Your task to perform on an android device: What's the weather? Image 0: 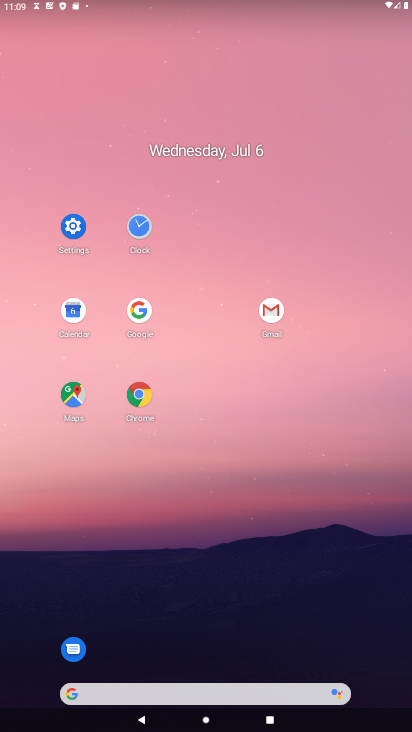
Step 0: drag from (278, 247) to (262, 72)
Your task to perform on an android device: What's the weather? Image 1: 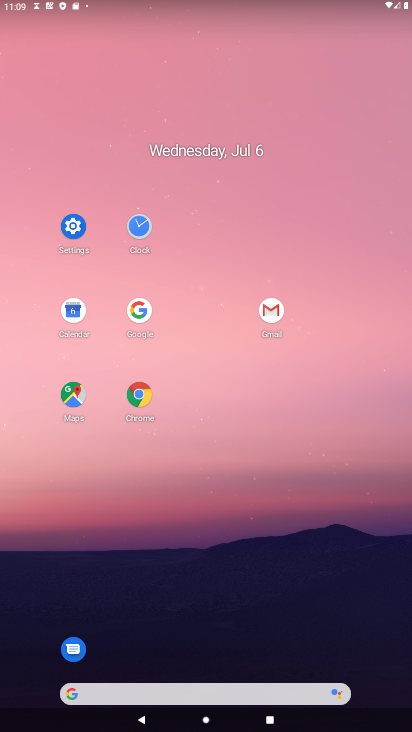
Step 1: drag from (234, 602) to (247, 116)
Your task to perform on an android device: What's the weather? Image 2: 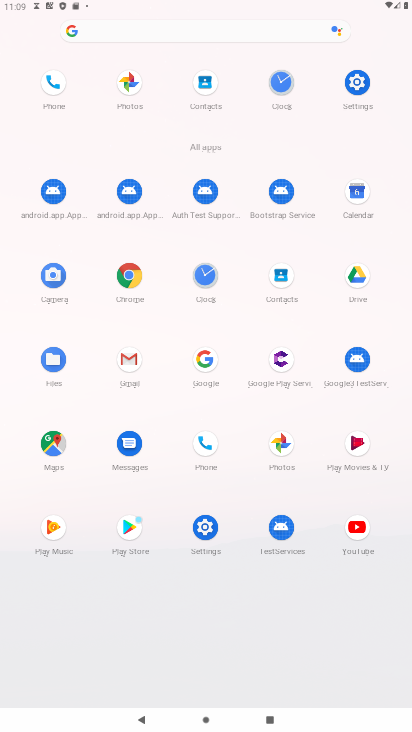
Step 2: click (361, 191)
Your task to perform on an android device: What's the weather? Image 3: 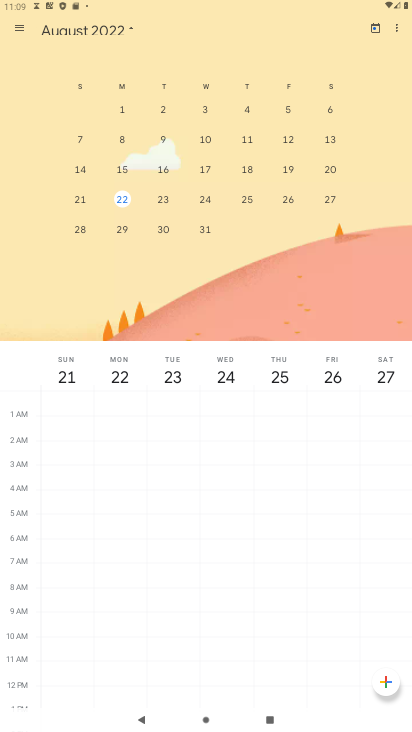
Step 3: click (384, 672)
Your task to perform on an android device: What's the weather? Image 4: 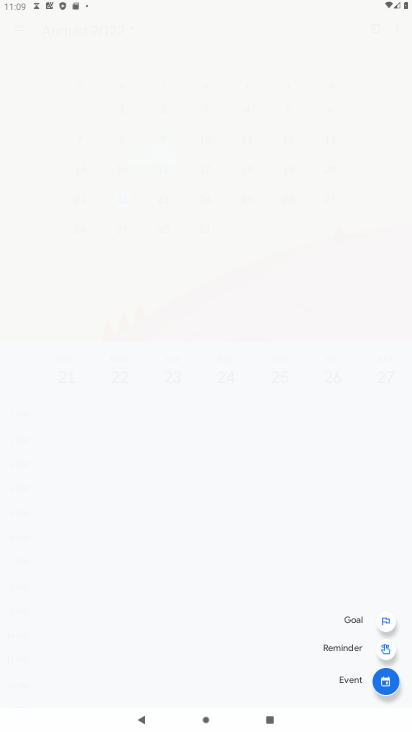
Step 4: press home button
Your task to perform on an android device: What's the weather? Image 5: 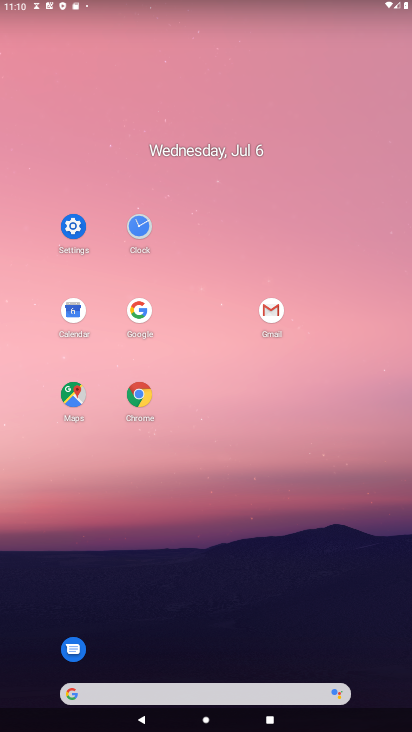
Step 5: click (141, 309)
Your task to perform on an android device: What's the weather? Image 6: 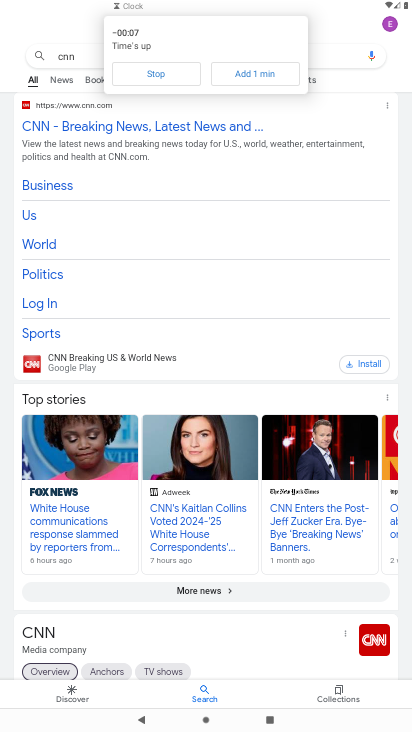
Step 6: click (87, 49)
Your task to perform on an android device: What's the weather? Image 7: 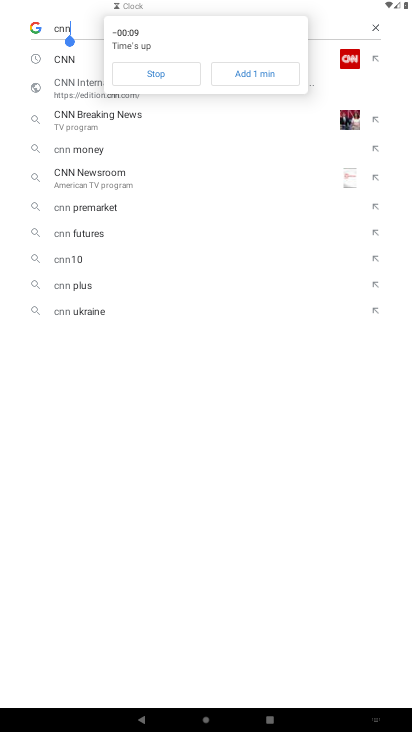
Step 7: click (374, 24)
Your task to perform on an android device: What's the weather? Image 8: 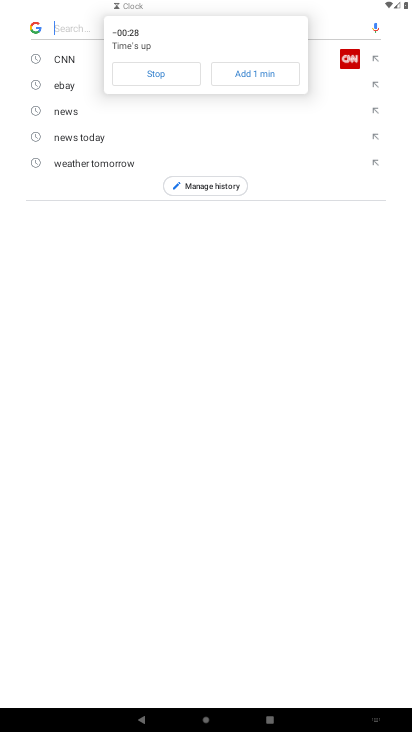
Step 8: click (179, 66)
Your task to perform on an android device: What's the weather? Image 9: 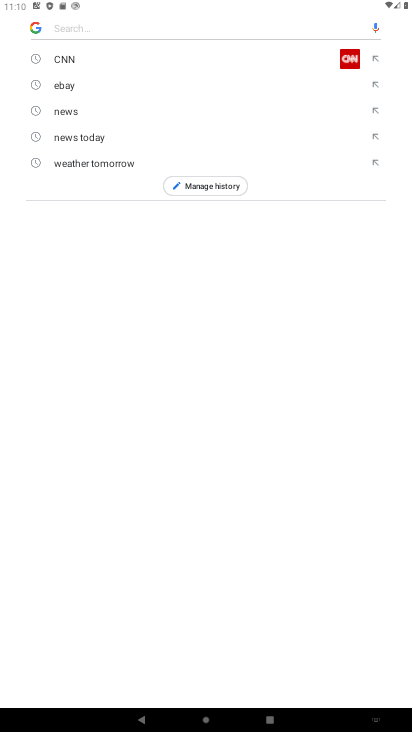
Step 9: click (97, 30)
Your task to perform on an android device: What's the weather? Image 10: 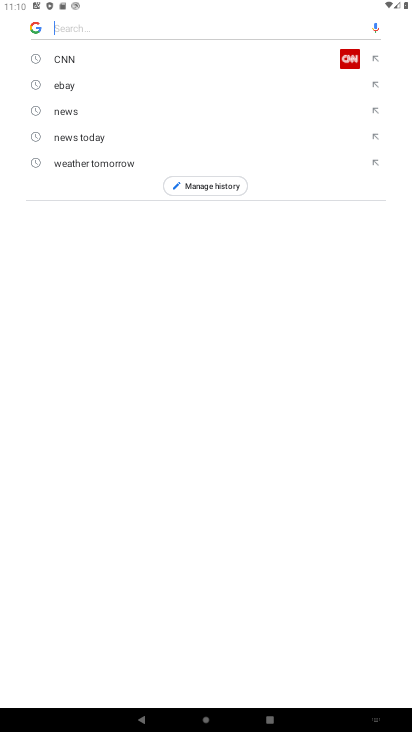
Step 10: type "weather"
Your task to perform on an android device: What's the weather? Image 11: 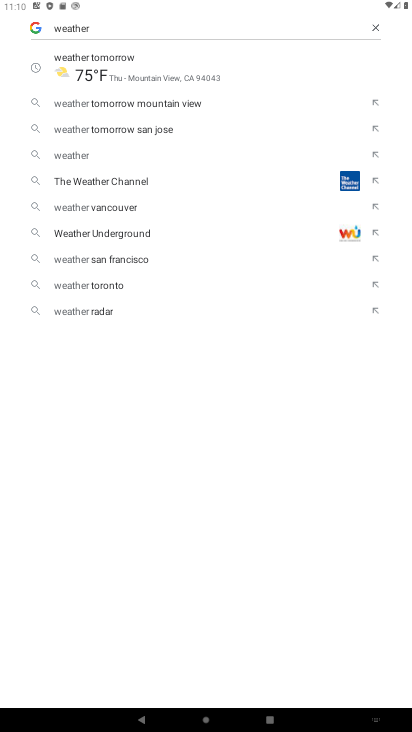
Step 11: click (147, 51)
Your task to perform on an android device: What's the weather? Image 12: 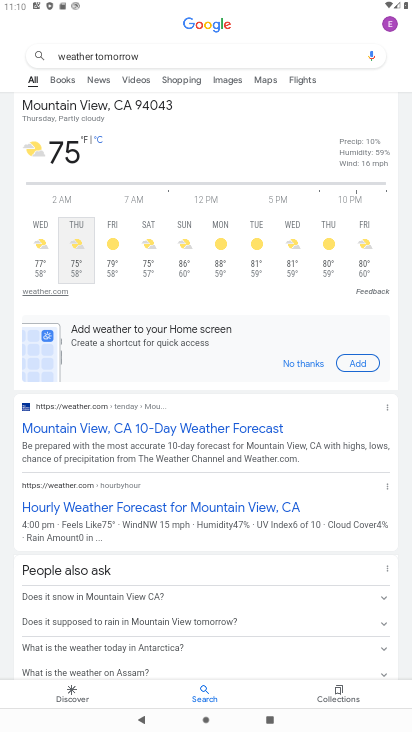
Step 12: task complete